Your task to perform on an android device: Clear all items from cart on amazon. Add asus rog to the cart on amazon, then select checkout. Image 0: 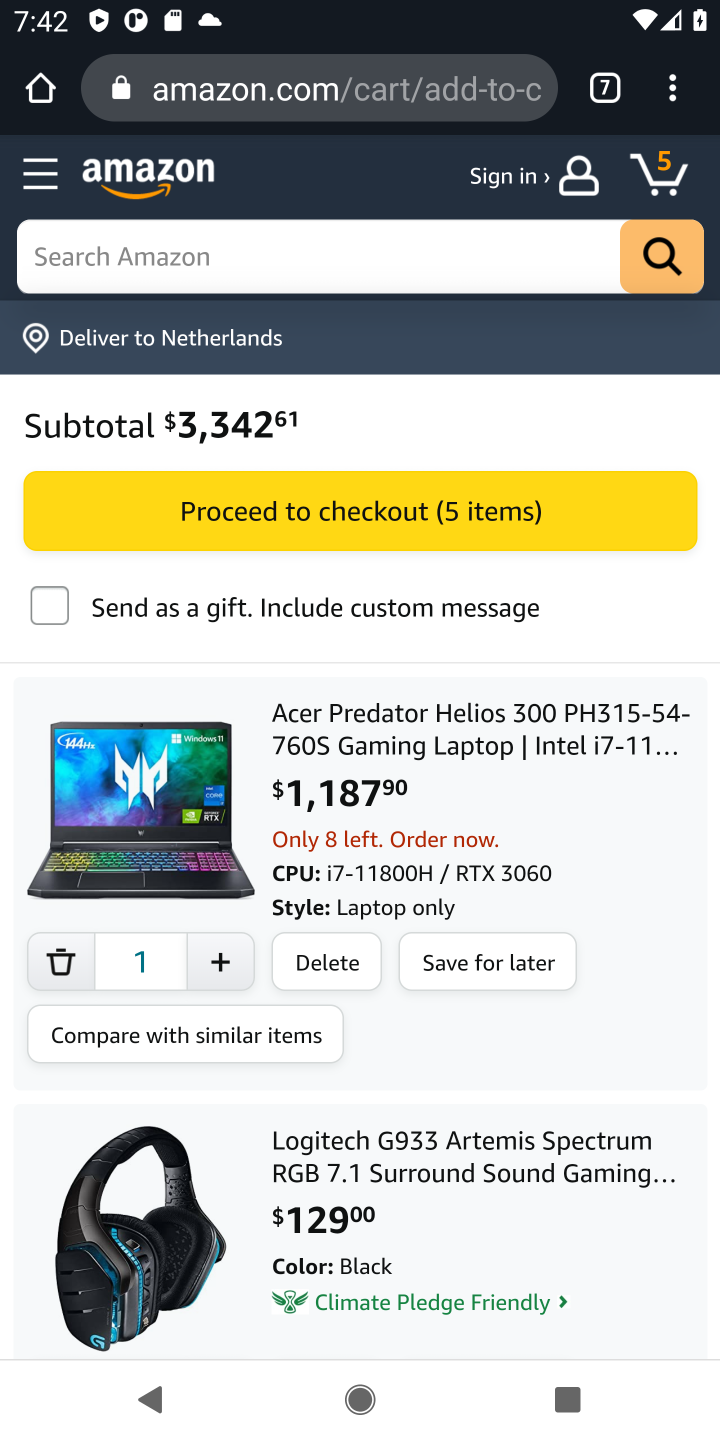
Step 0: click (321, 951)
Your task to perform on an android device: Clear all items from cart on amazon. Add asus rog to the cart on amazon, then select checkout. Image 1: 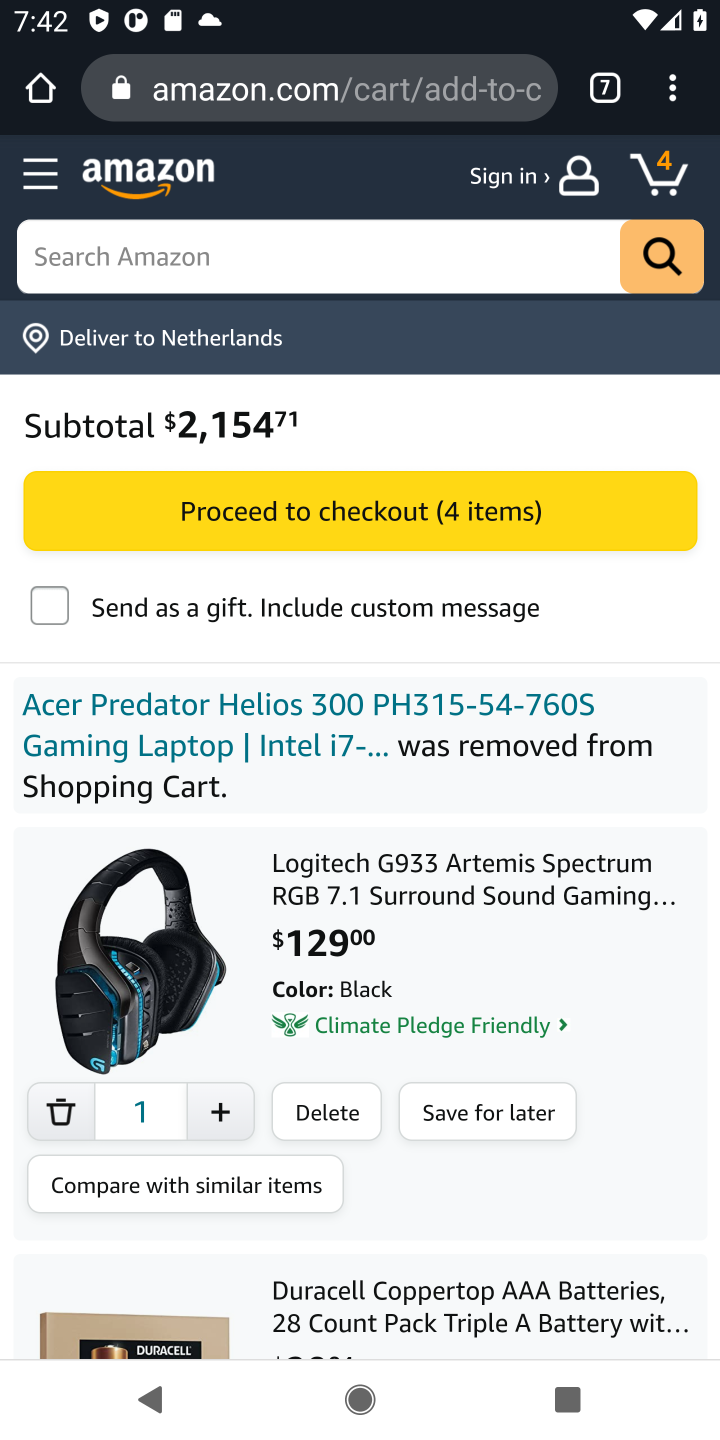
Step 1: click (322, 1111)
Your task to perform on an android device: Clear all items from cart on amazon. Add asus rog to the cart on amazon, then select checkout. Image 2: 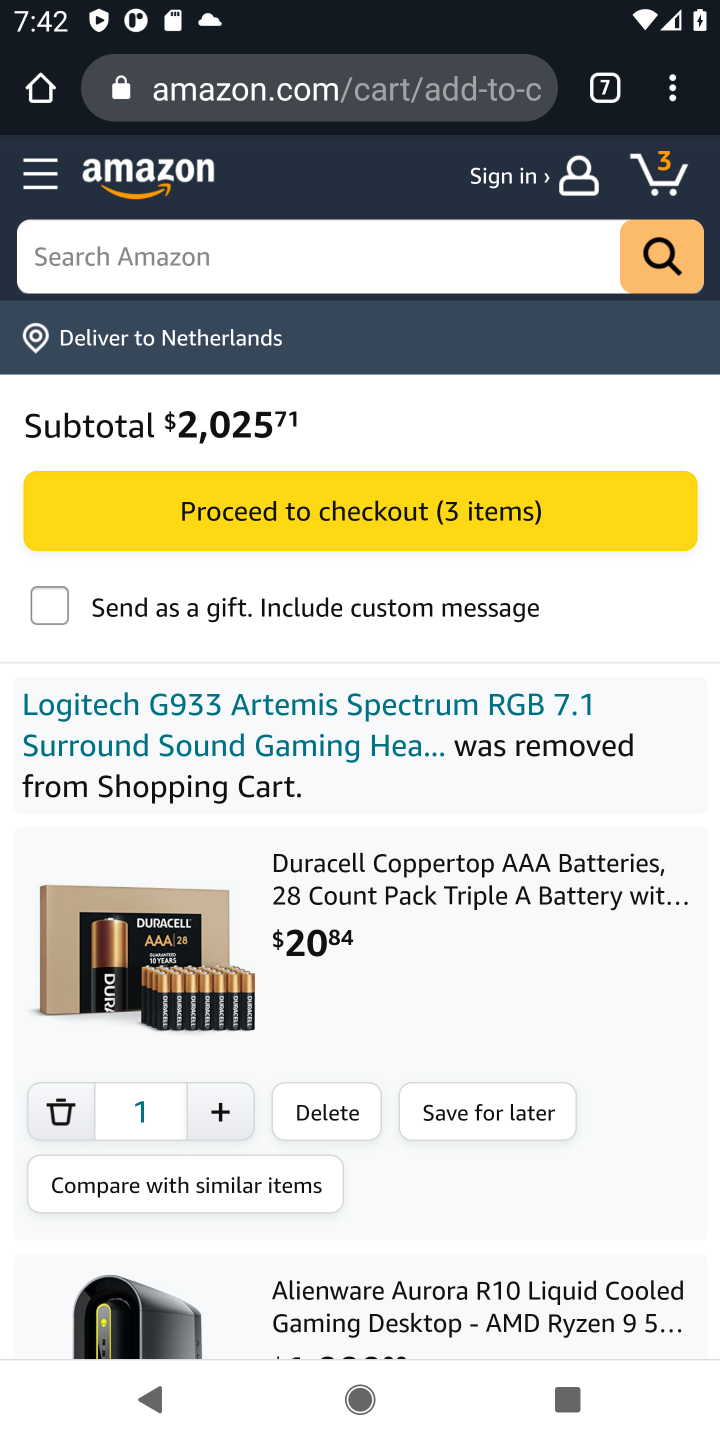
Step 2: click (322, 1111)
Your task to perform on an android device: Clear all items from cart on amazon. Add asus rog to the cart on amazon, then select checkout. Image 3: 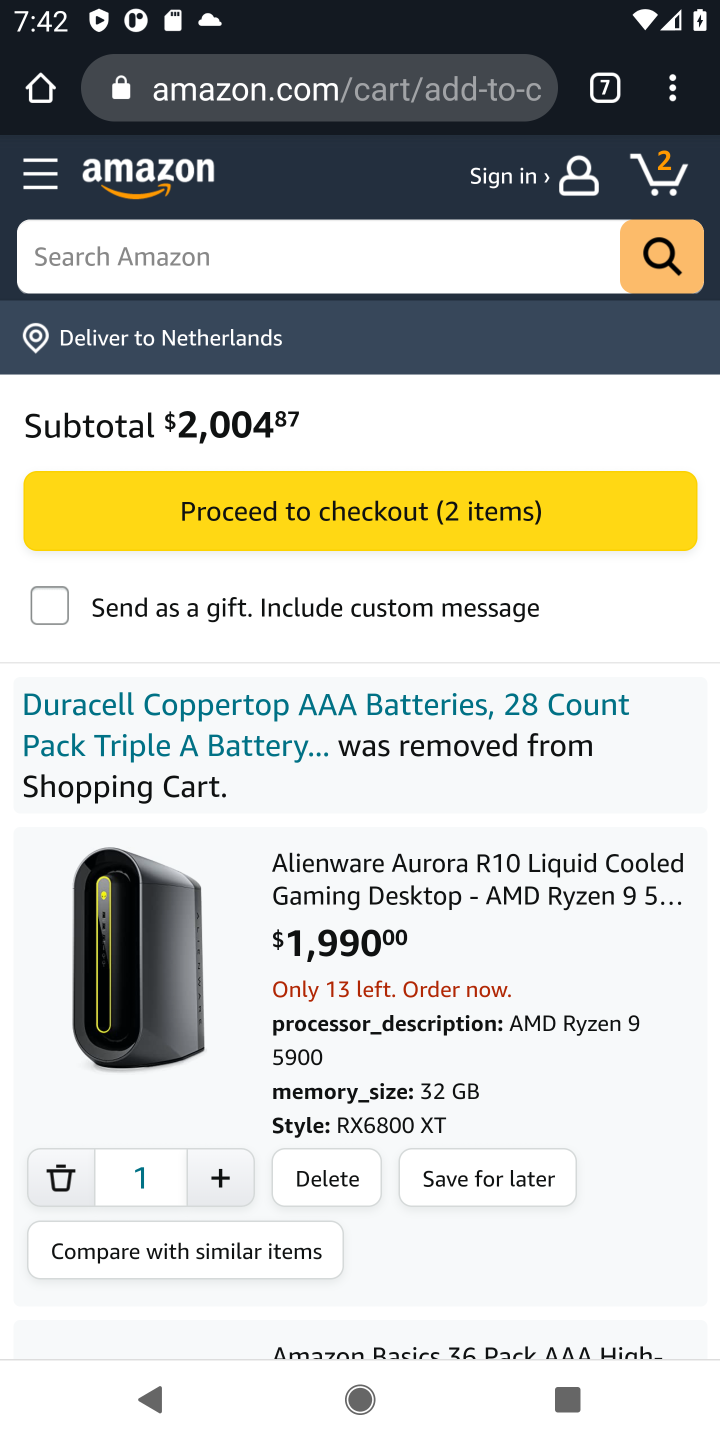
Step 3: click (334, 1169)
Your task to perform on an android device: Clear all items from cart on amazon. Add asus rog to the cart on amazon, then select checkout. Image 4: 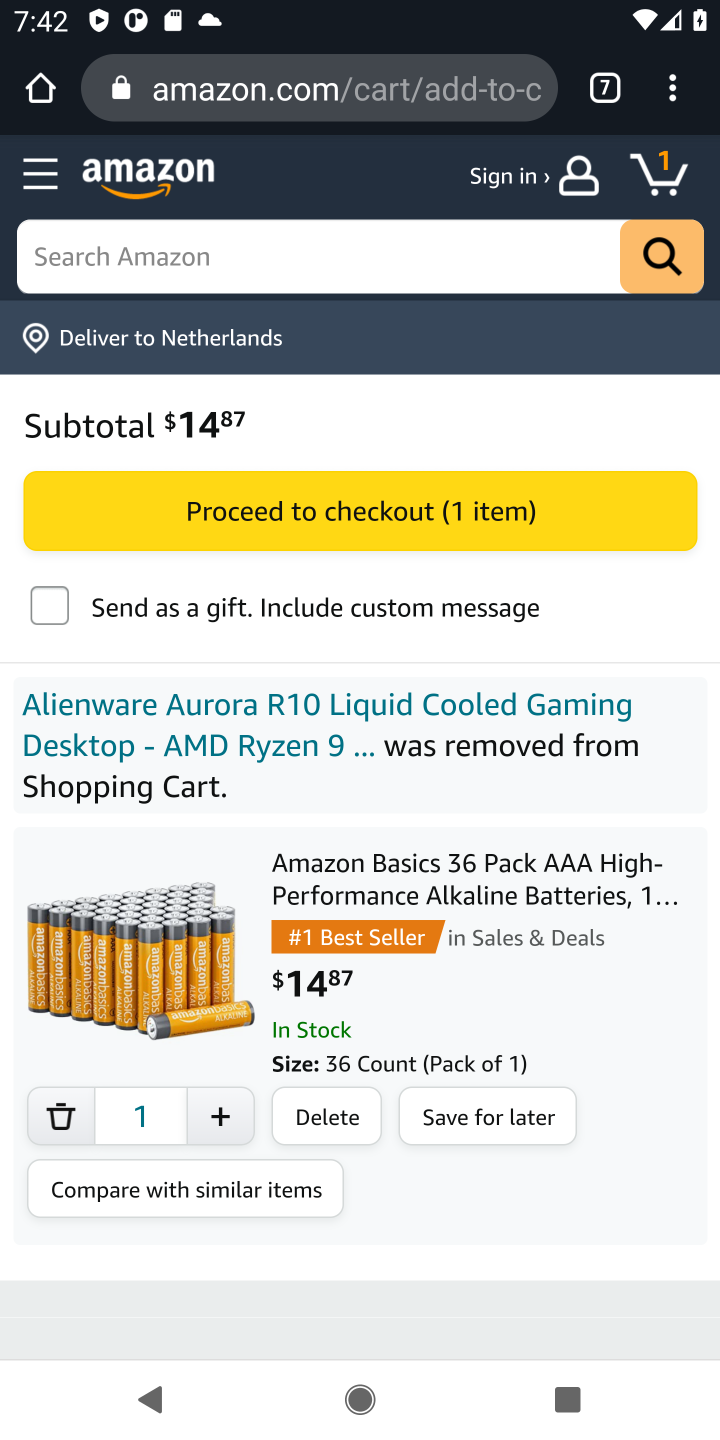
Step 4: click (333, 1109)
Your task to perform on an android device: Clear all items from cart on amazon. Add asus rog to the cart on amazon, then select checkout. Image 5: 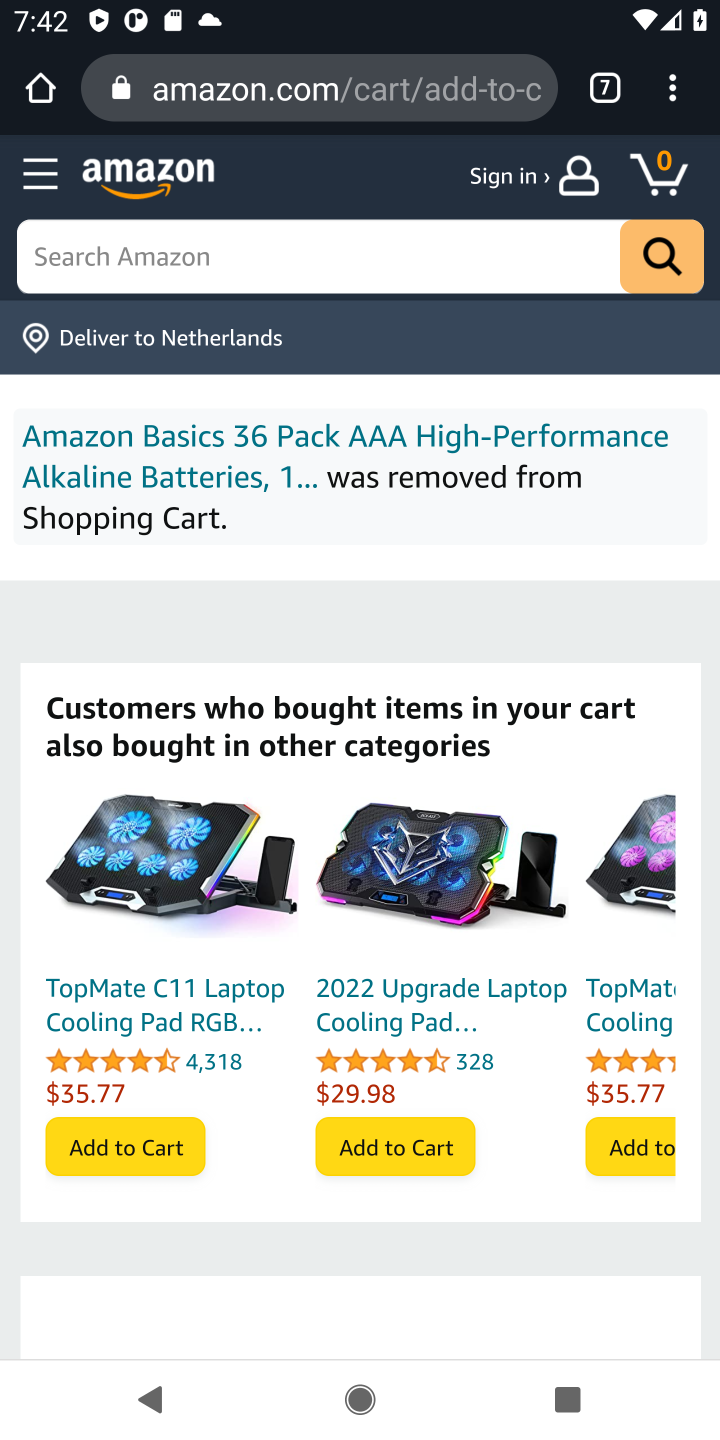
Step 5: click (266, 287)
Your task to perform on an android device: Clear all items from cart on amazon. Add asus rog to the cart on amazon, then select checkout. Image 6: 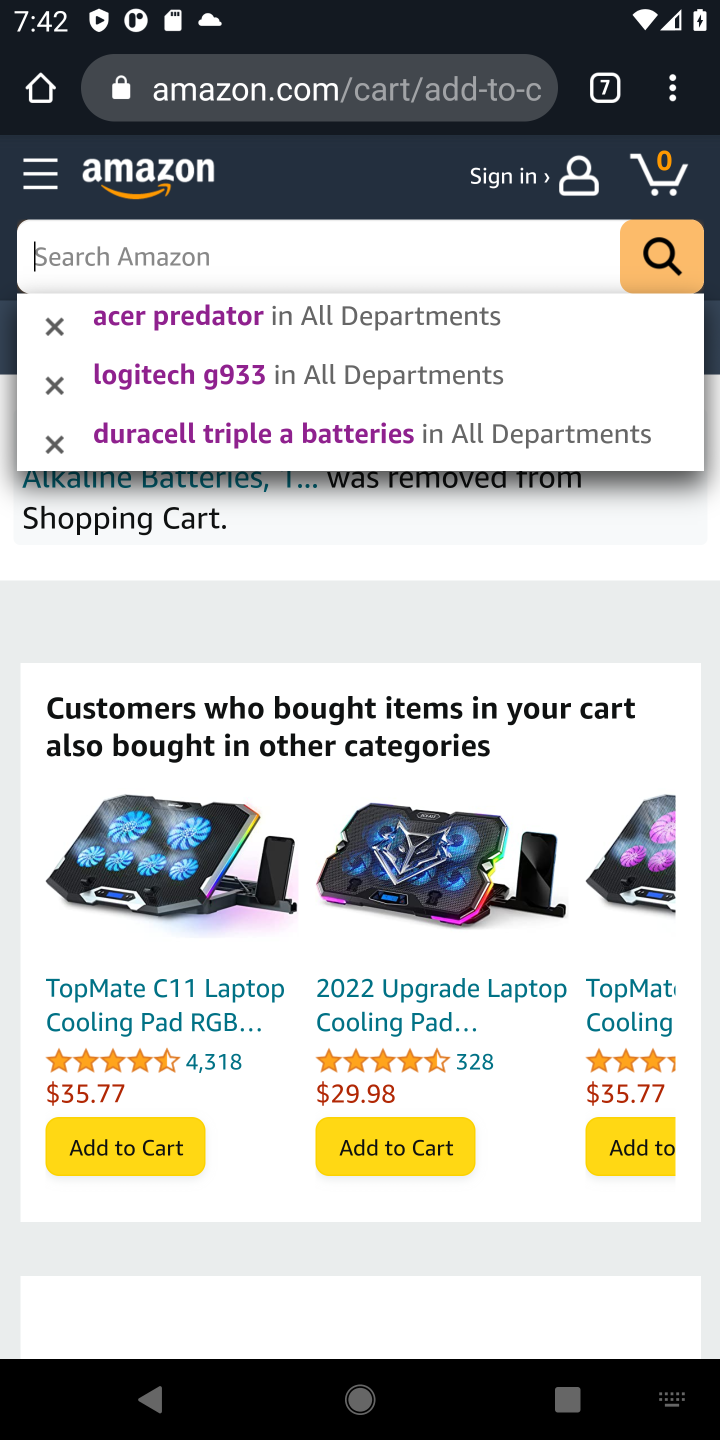
Step 6: type "asus rog "
Your task to perform on an android device: Clear all items from cart on amazon. Add asus rog to the cart on amazon, then select checkout. Image 7: 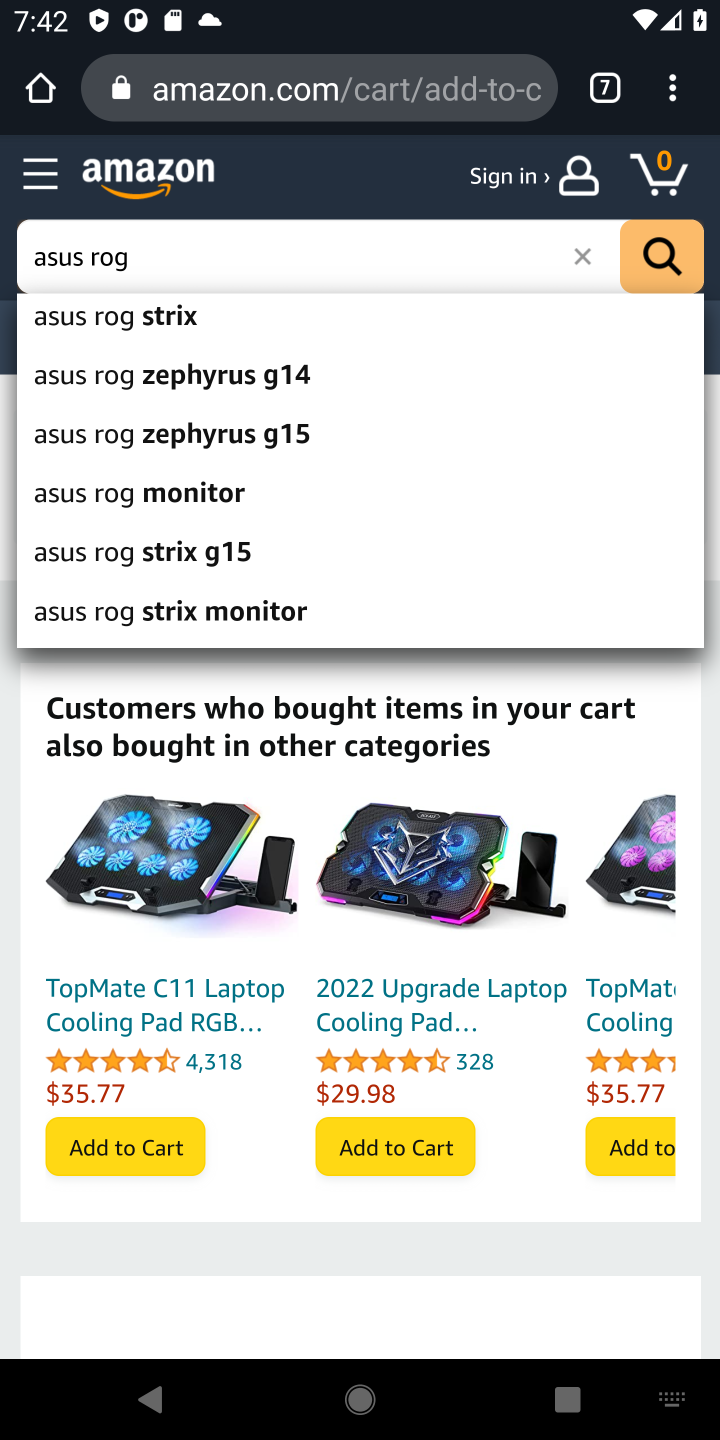
Step 7: click (670, 246)
Your task to perform on an android device: Clear all items from cart on amazon. Add asus rog to the cart on amazon, then select checkout. Image 8: 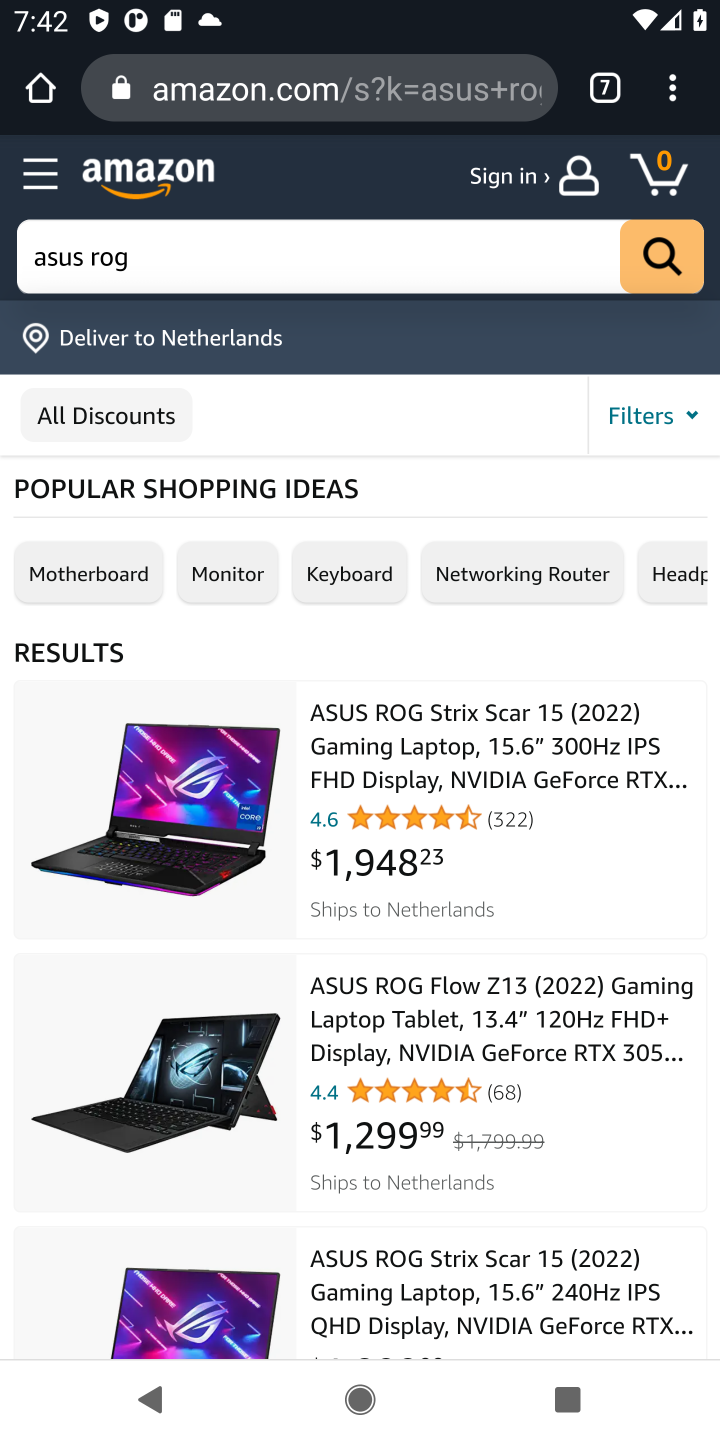
Step 8: click (443, 747)
Your task to perform on an android device: Clear all items from cart on amazon. Add asus rog to the cart on amazon, then select checkout. Image 9: 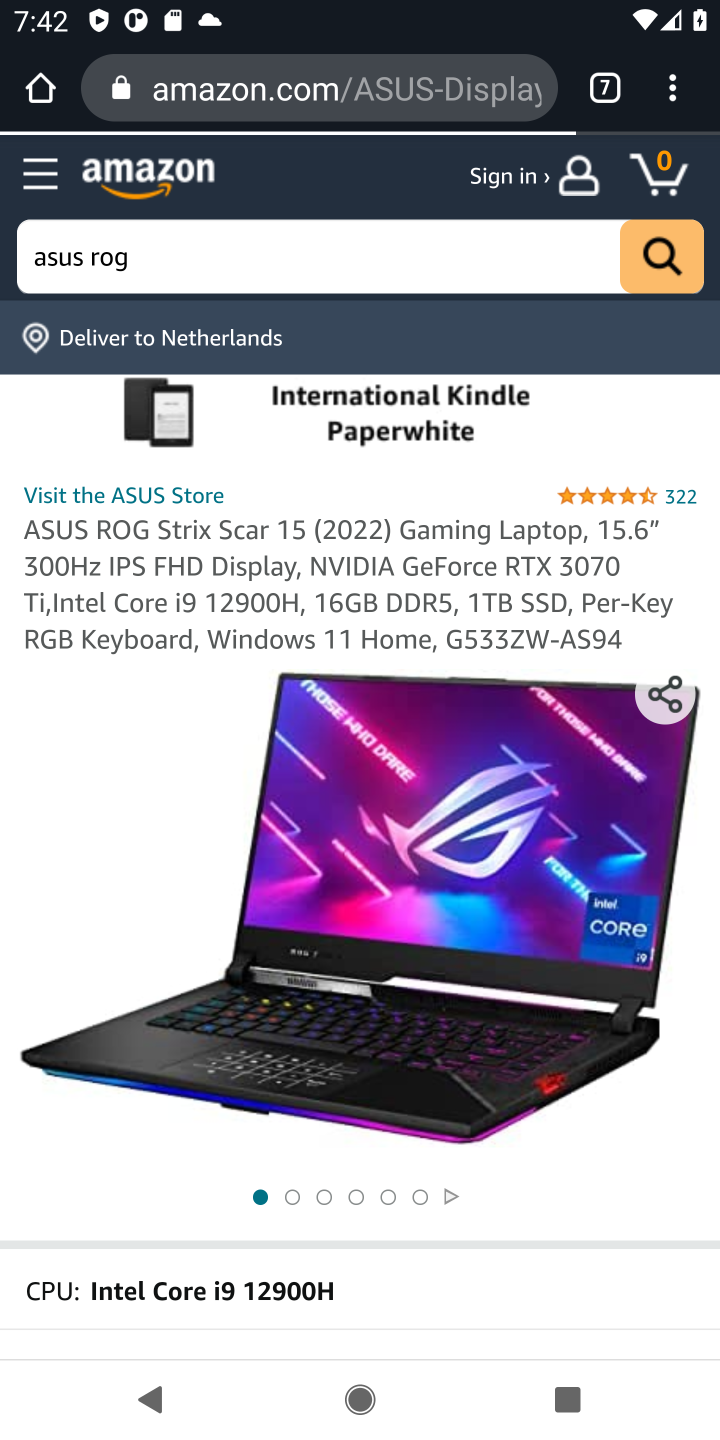
Step 9: drag from (176, 1218) to (465, 2)
Your task to perform on an android device: Clear all items from cart on amazon. Add asus rog to the cart on amazon, then select checkout. Image 10: 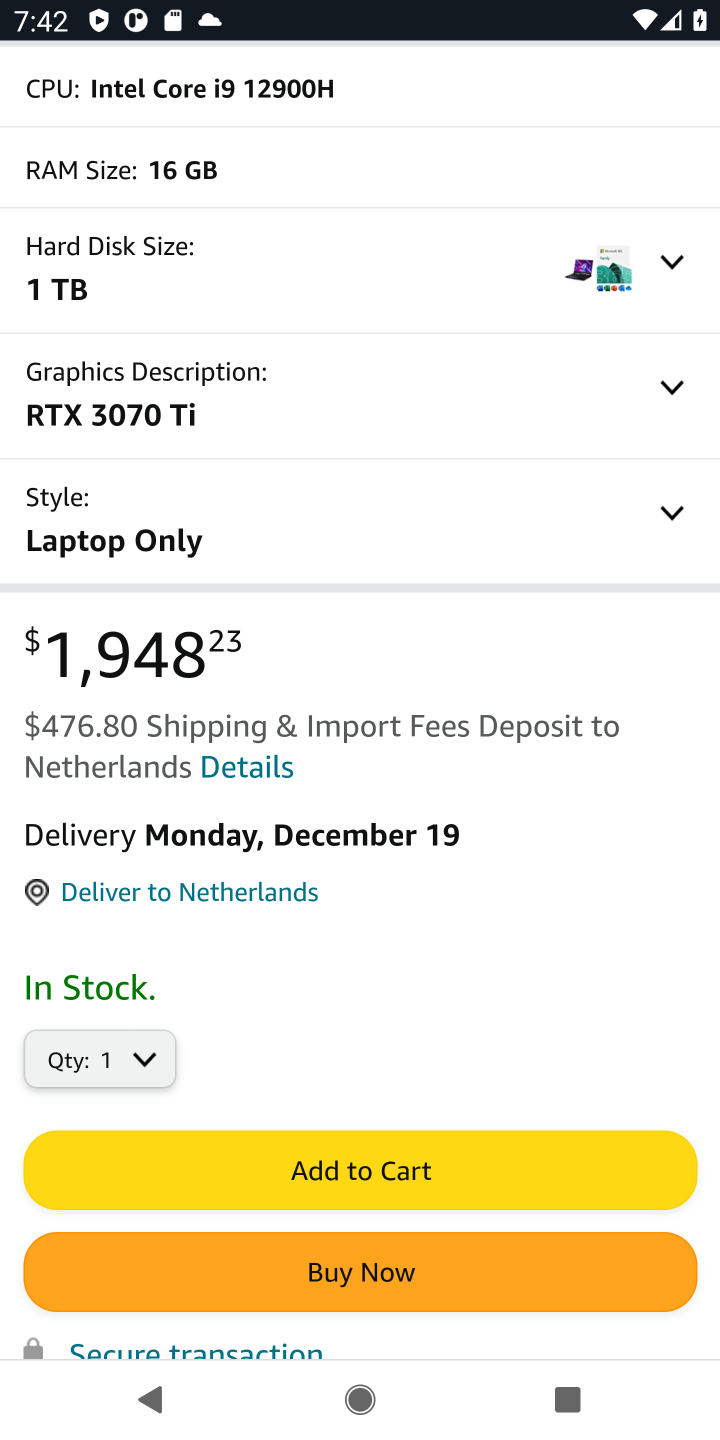
Step 10: click (426, 1165)
Your task to perform on an android device: Clear all items from cart on amazon. Add asus rog to the cart on amazon, then select checkout. Image 11: 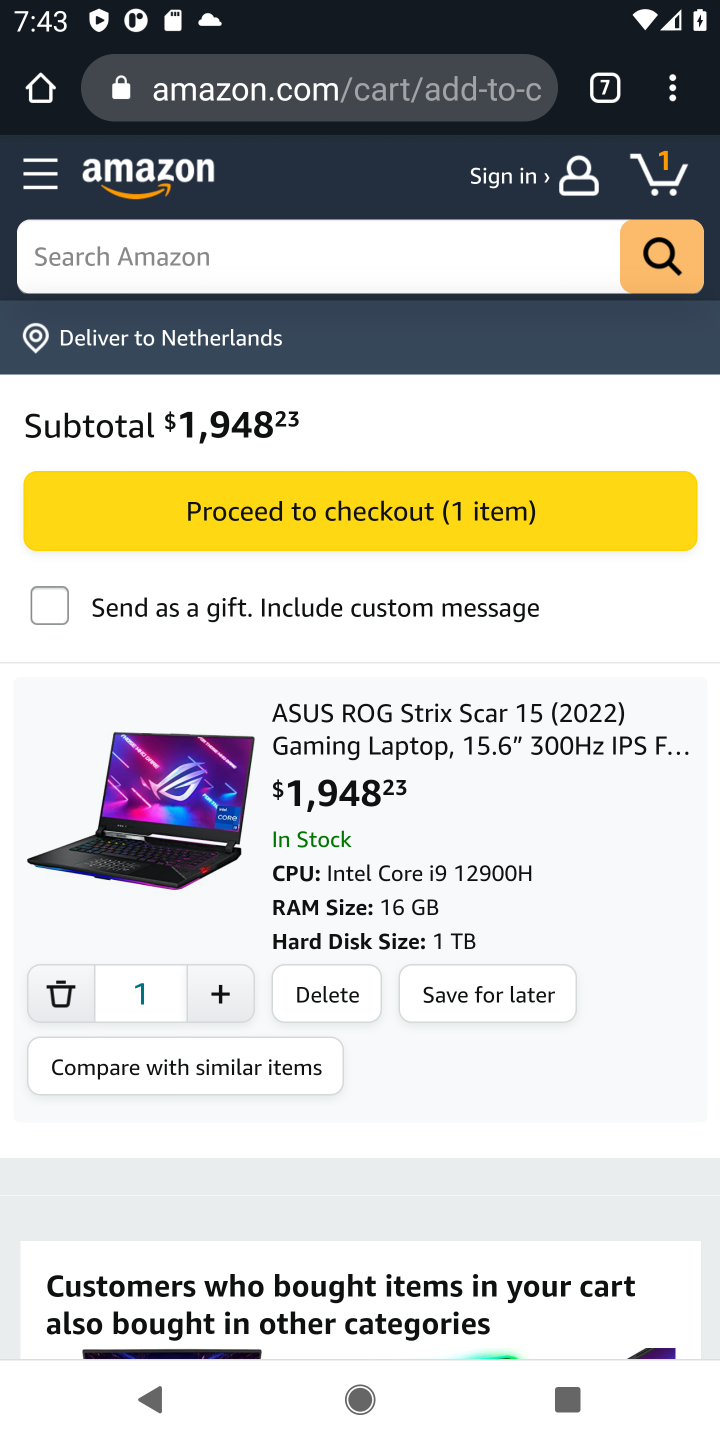
Step 11: click (393, 541)
Your task to perform on an android device: Clear all items from cart on amazon. Add asus rog to the cart on amazon, then select checkout. Image 12: 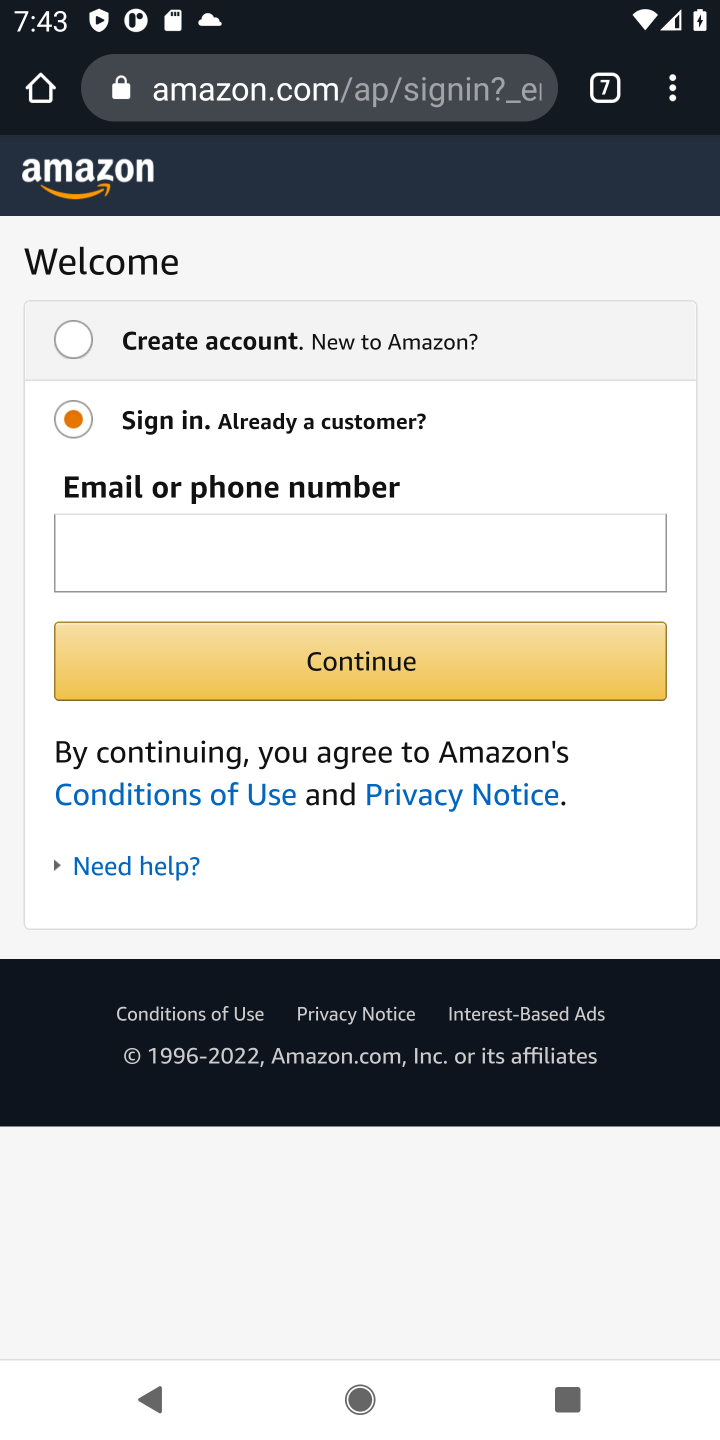
Step 12: task complete